Your task to perform on an android device: View the shopping cart on ebay.com. Add "razer blackwidow" to the cart on ebay.com Image 0: 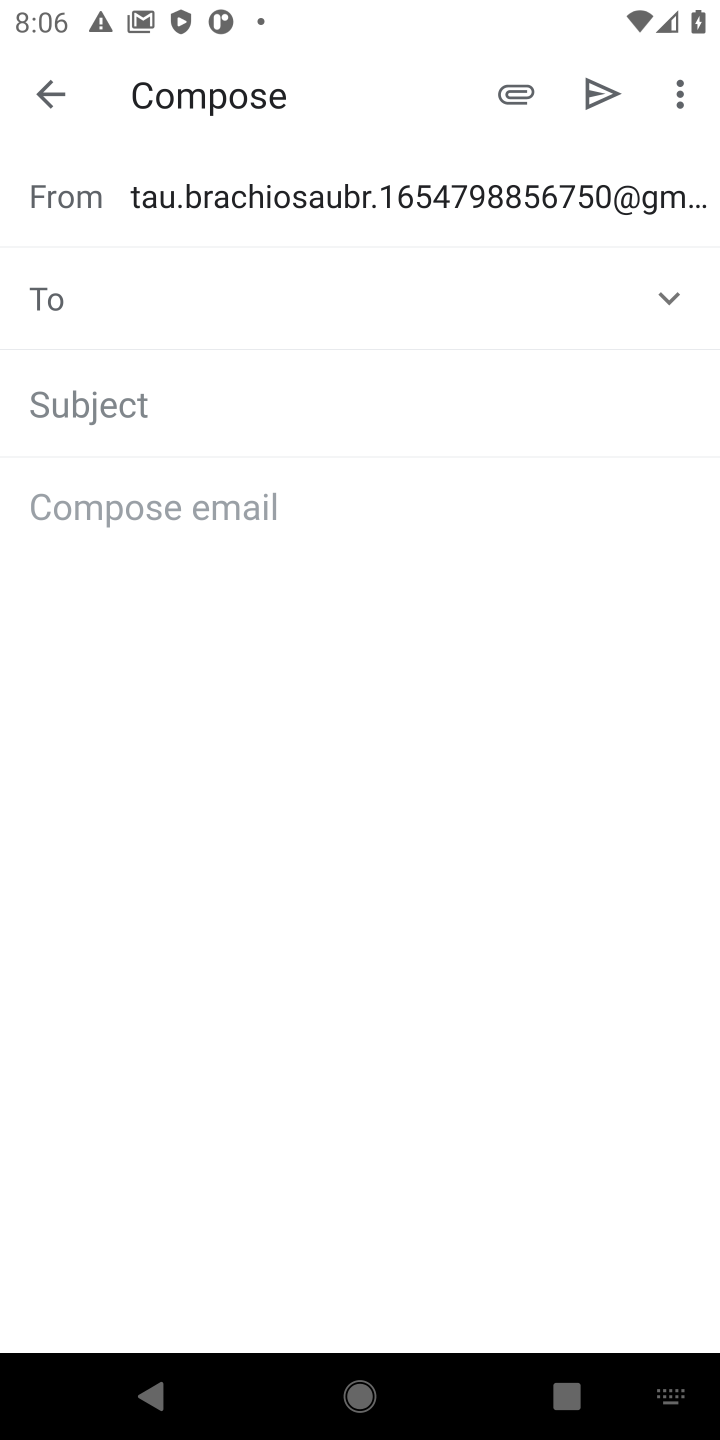
Step 0: press home button
Your task to perform on an android device: View the shopping cart on ebay.com. Add "razer blackwidow" to the cart on ebay.com Image 1: 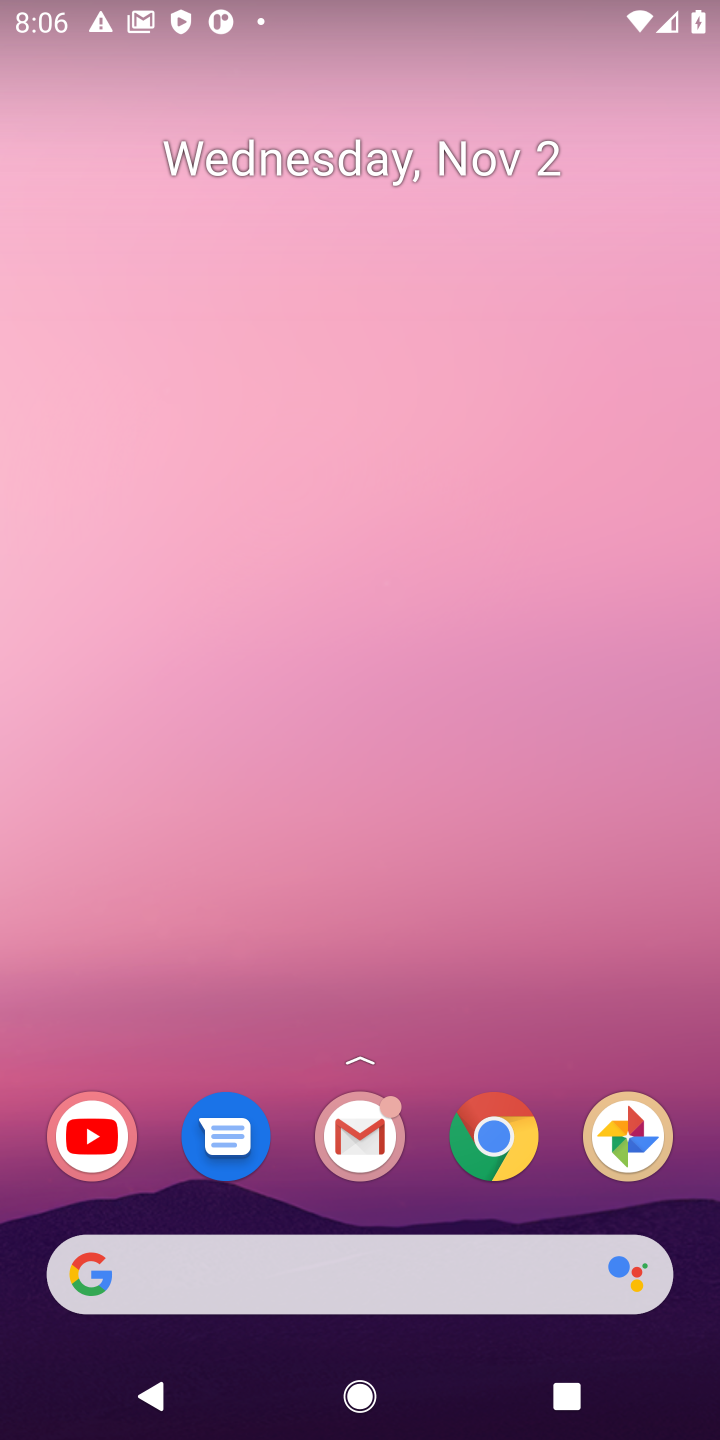
Step 1: drag from (401, 1016) to (469, 205)
Your task to perform on an android device: View the shopping cart on ebay.com. Add "razer blackwidow" to the cart on ebay.com Image 2: 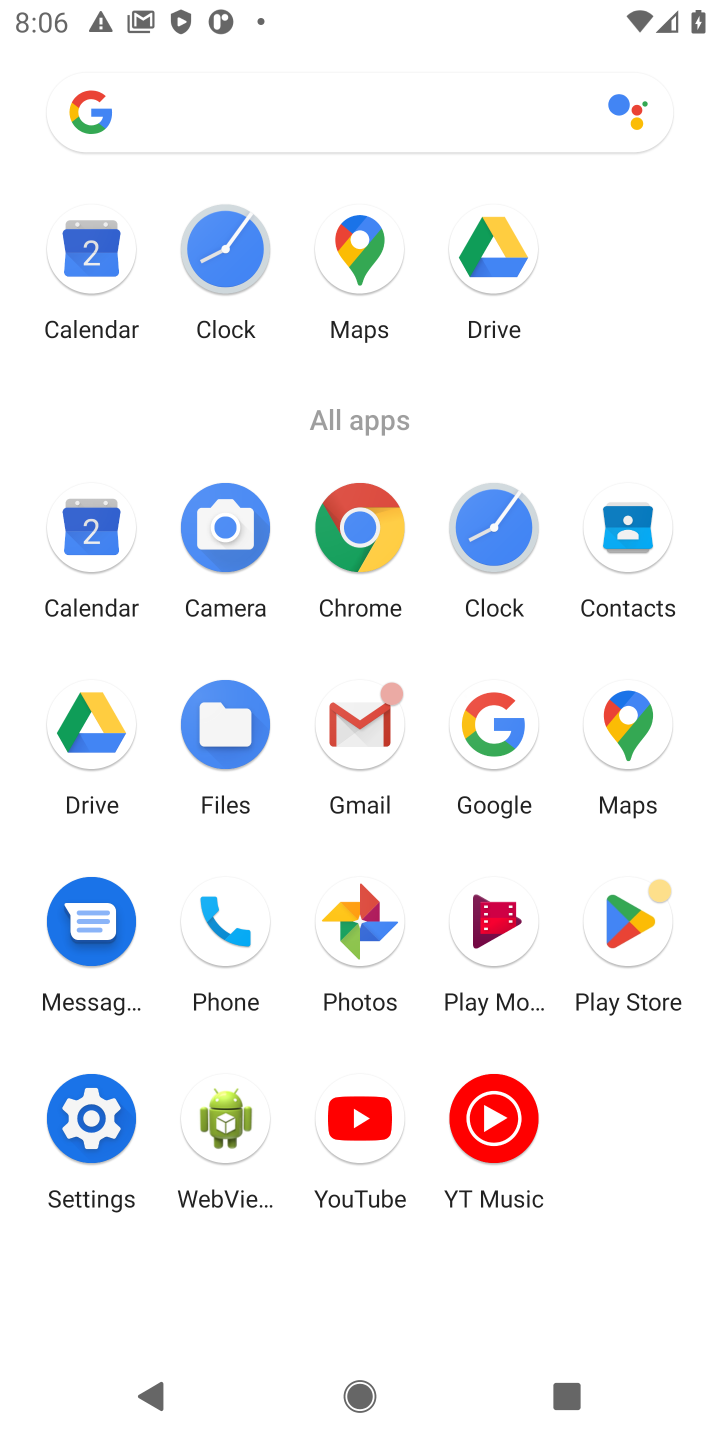
Step 2: click (491, 728)
Your task to perform on an android device: View the shopping cart on ebay.com. Add "razer blackwidow" to the cart on ebay.com Image 3: 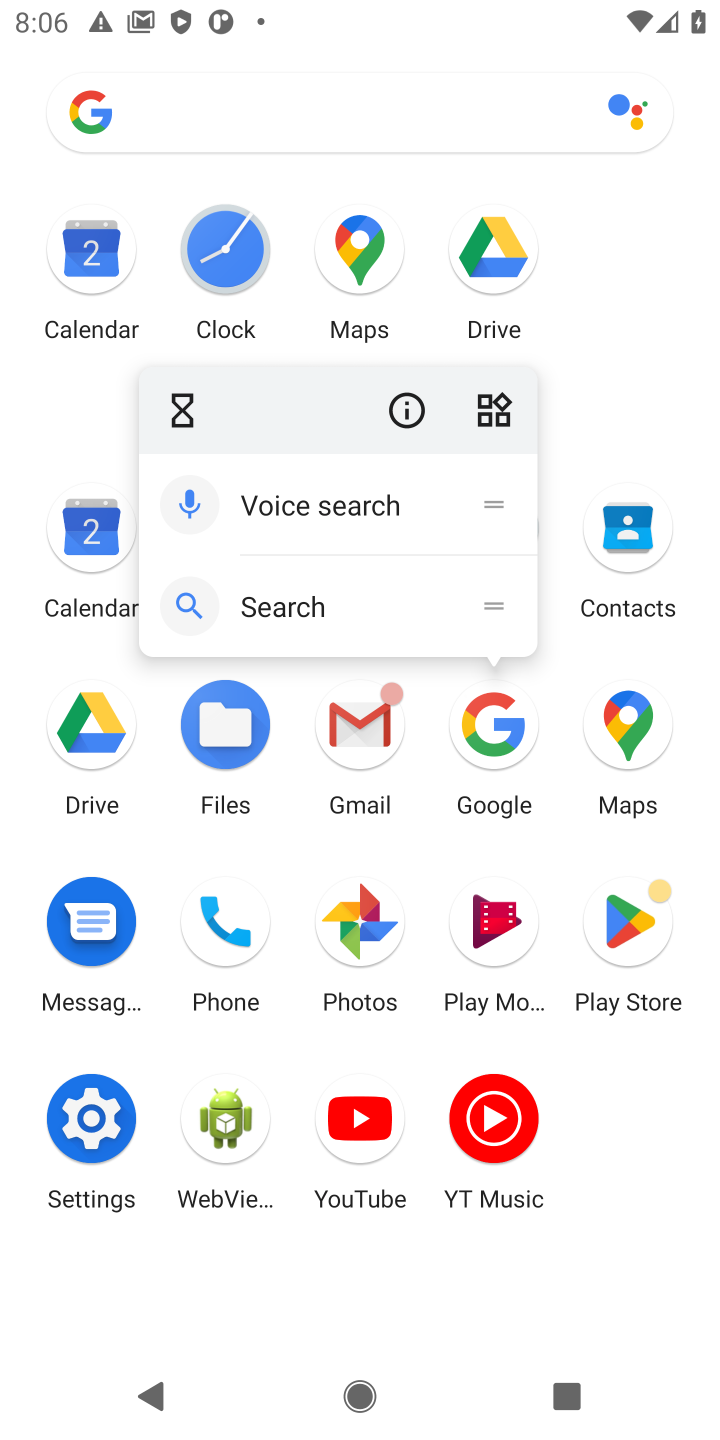
Step 3: click (491, 728)
Your task to perform on an android device: View the shopping cart on ebay.com. Add "razer blackwidow" to the cart on ebay.com Image 4: 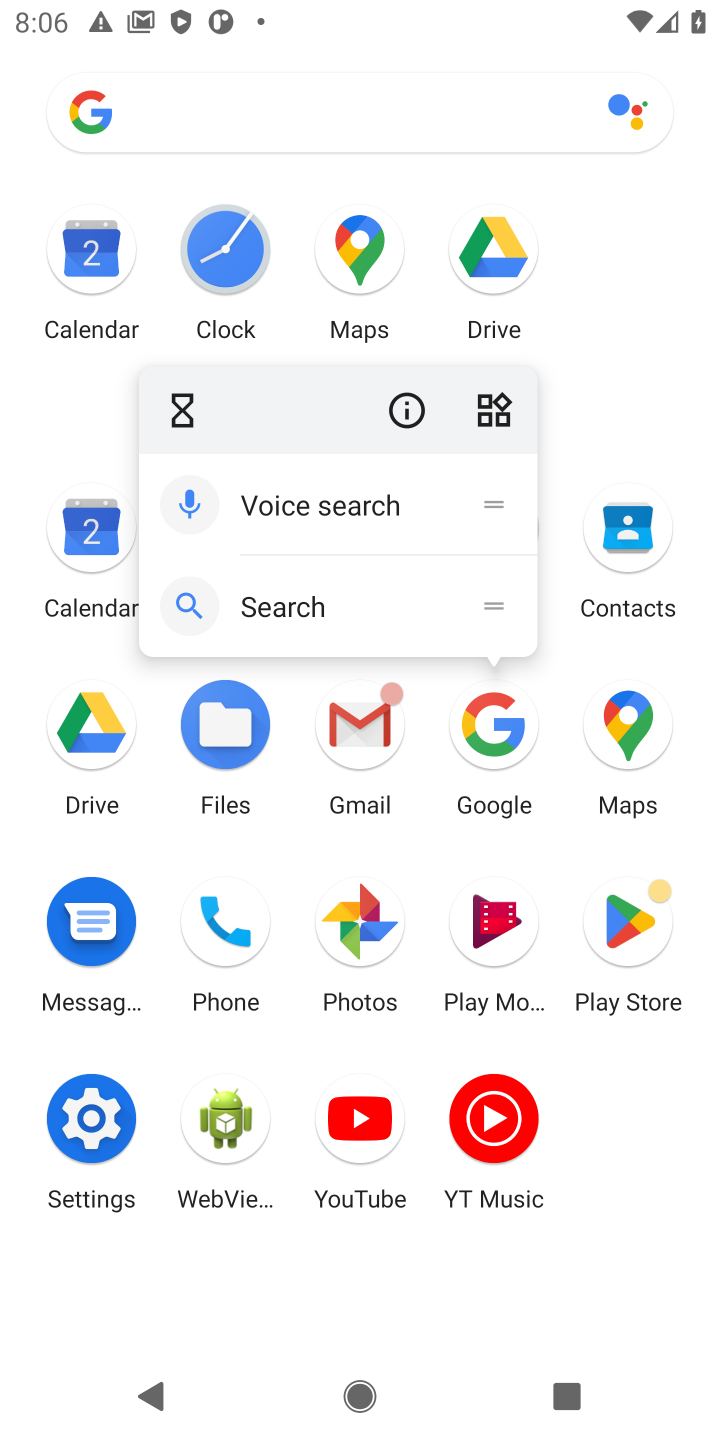
Step 4: click (491, 728)
Your task to perform on an android device: View the shopping cart on ebay.com. Add "razer blackwidow" to the cart on ebay.com Image 5: 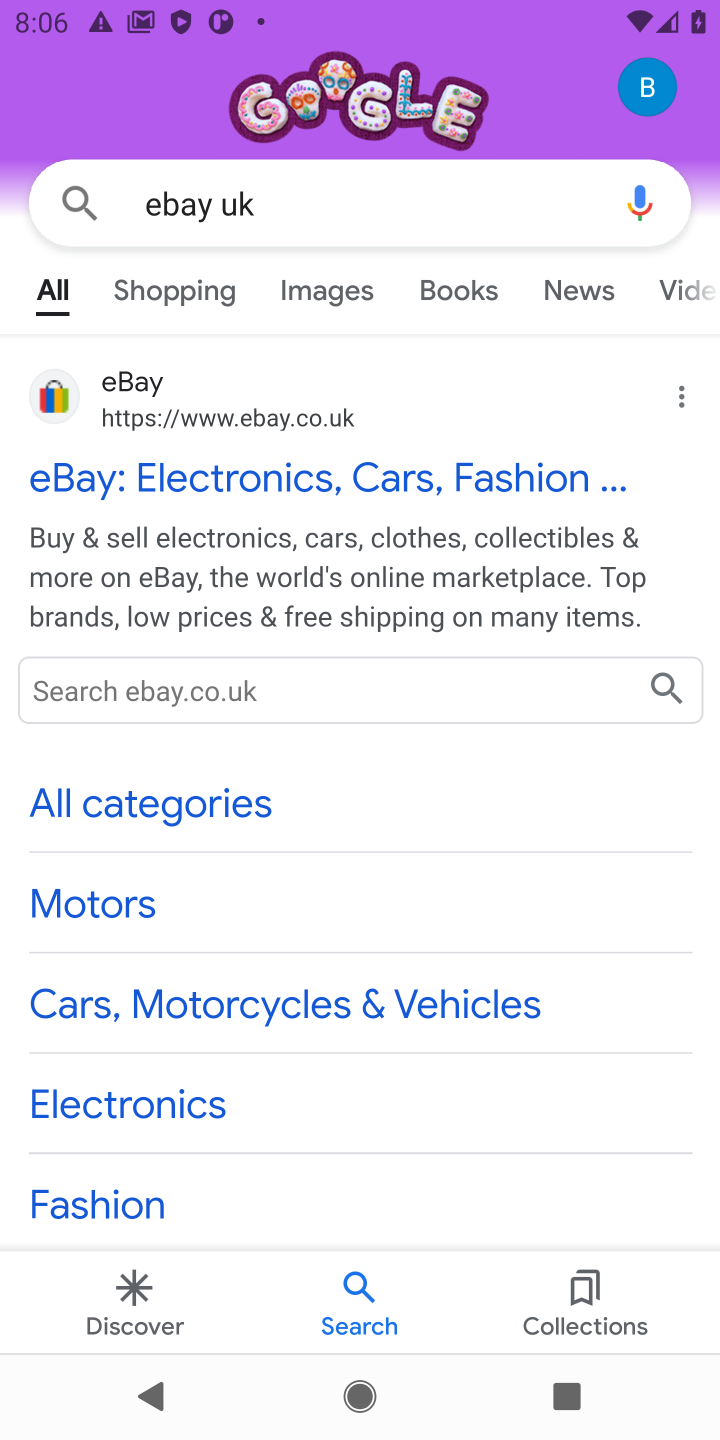
Step 5: click (40, 383)
Your task to perform on an android device: View the shopping cart on ebay.com. Add "razer blackwidow" to the cart on ebay.com Image 6: 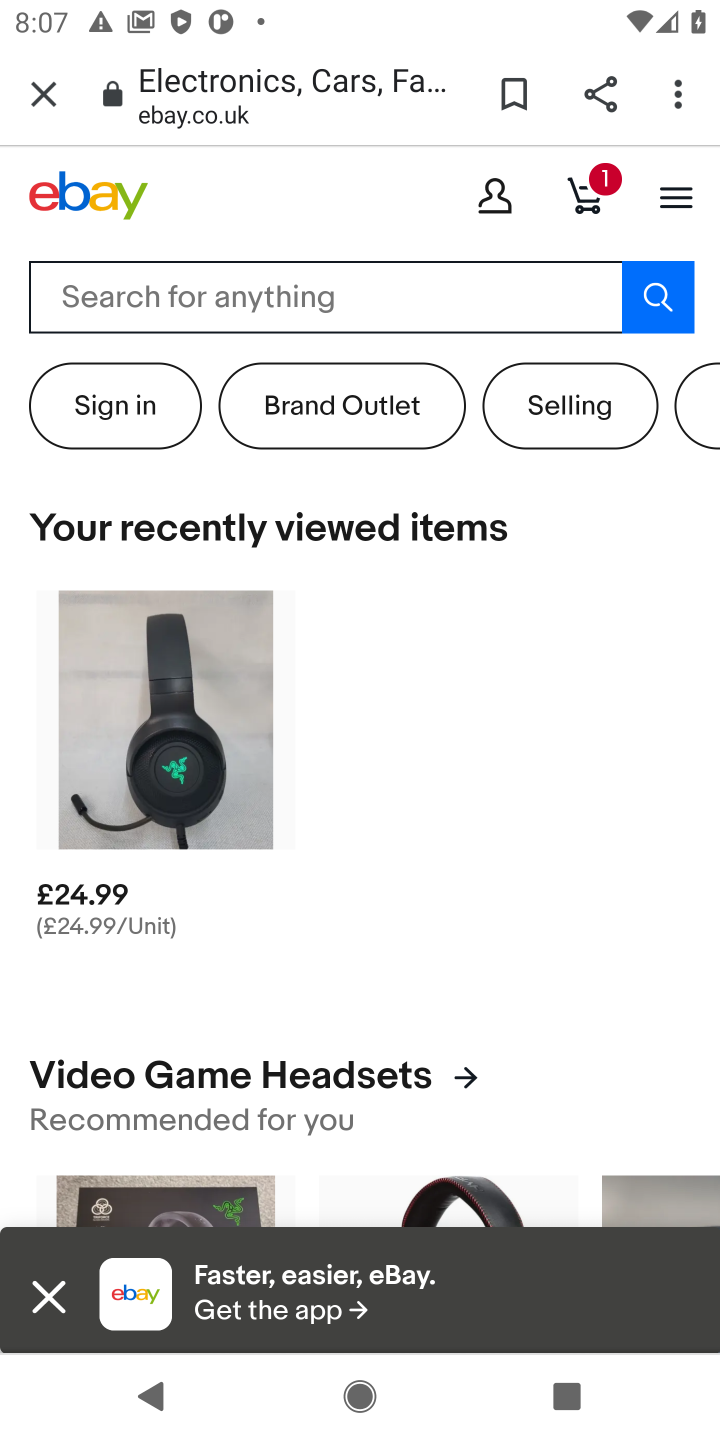
Step 6: click (330, 288)
Your task to perform on an android device: View the shopping cart on ebay.com. Add "razer blackwidow" to the cart on ebay.com Image 7: 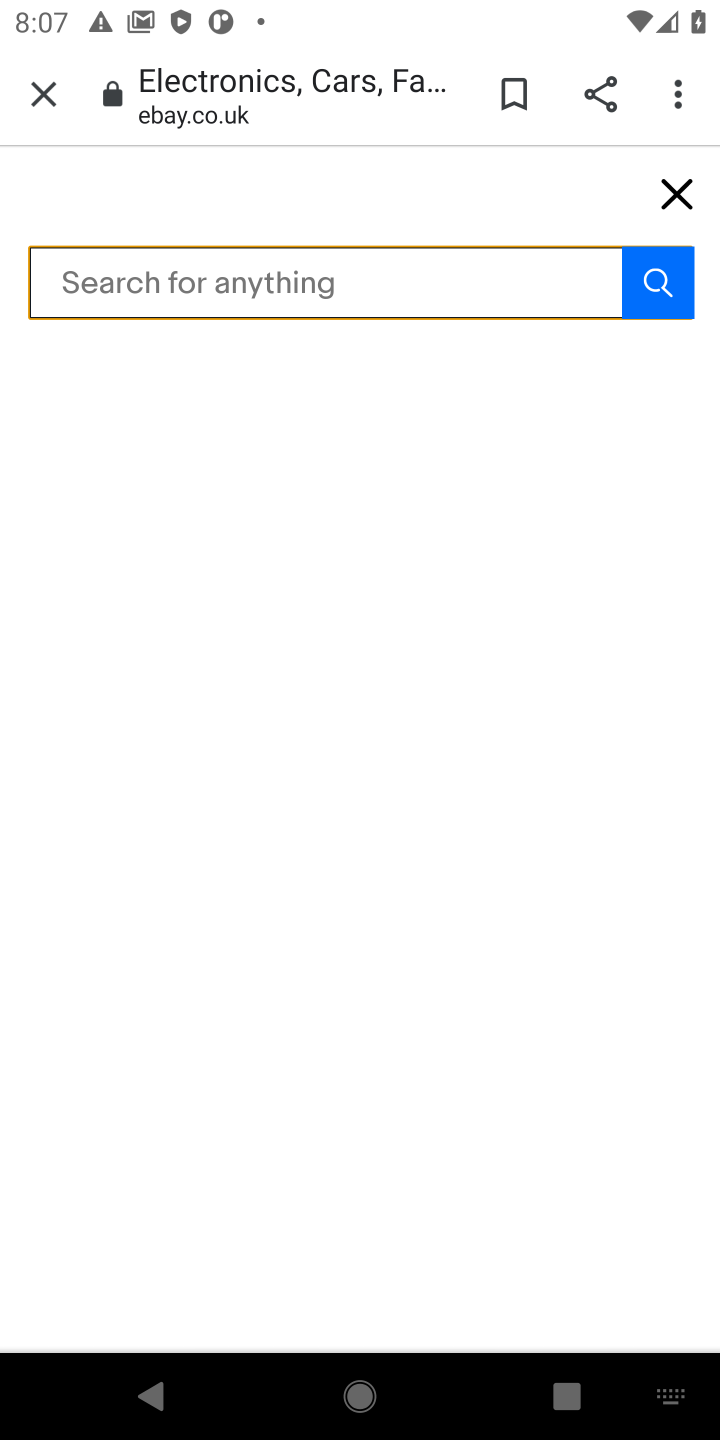
Step 7: type "razer blackwidow "
Your task to perform on an android device: View the shopping cart on ebay.com. Add "razer blackwidow" to the cart on ebay.com Image 8: 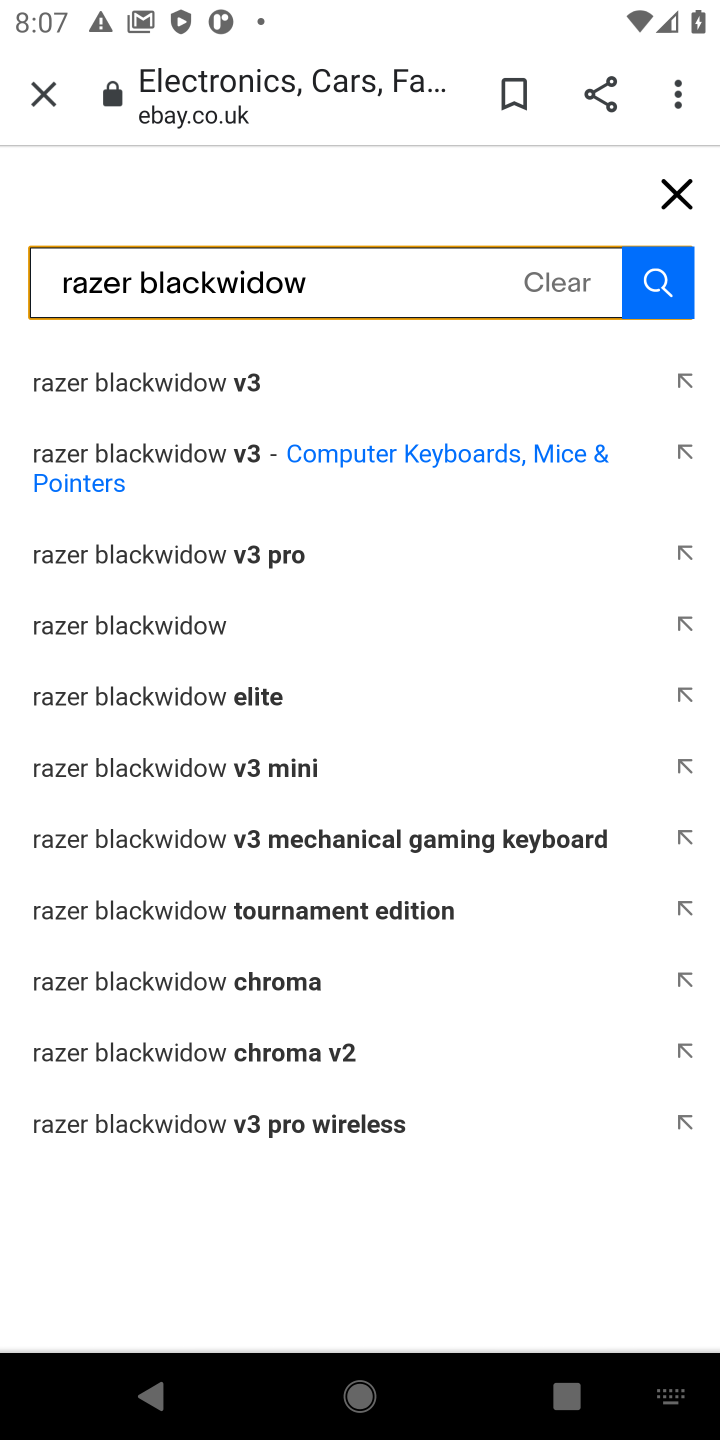
Step 8: click (158, 361)
Your task to perform on an android device: View the shopping cart on ebay.com. Add "razer blackwidow" to the cart on ebay.com Image 9: 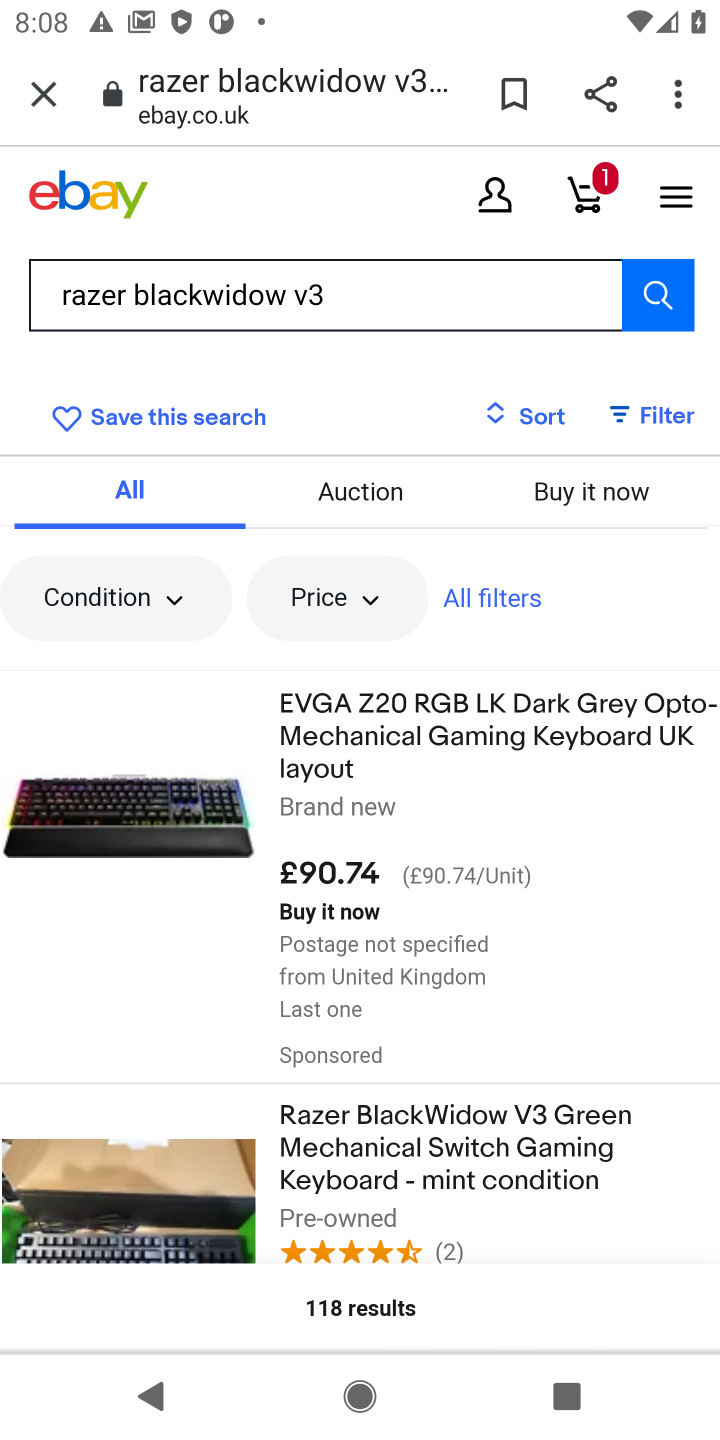
Step 9: click (404, 980)
Your task to perform on an android device: View the shopping cart on ebay.com. Add "razer blackwidow" to the cart on ebay.com Image 10: 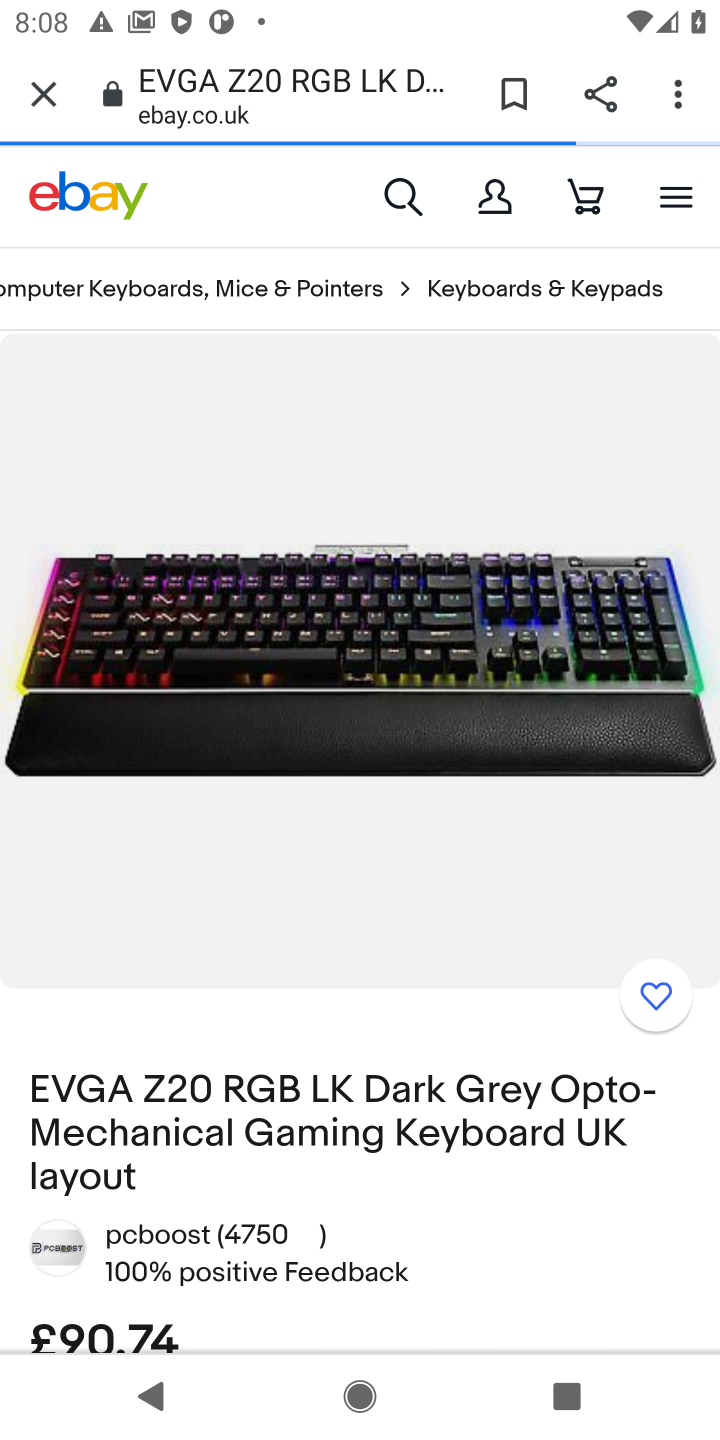
Step 10: drag from (469, 1127) to (469, 259)
Your task to perform on an android device: View the shopping cart on ebay.com. Add "razer blackwidow" to the cart on ebay.com Image 11: 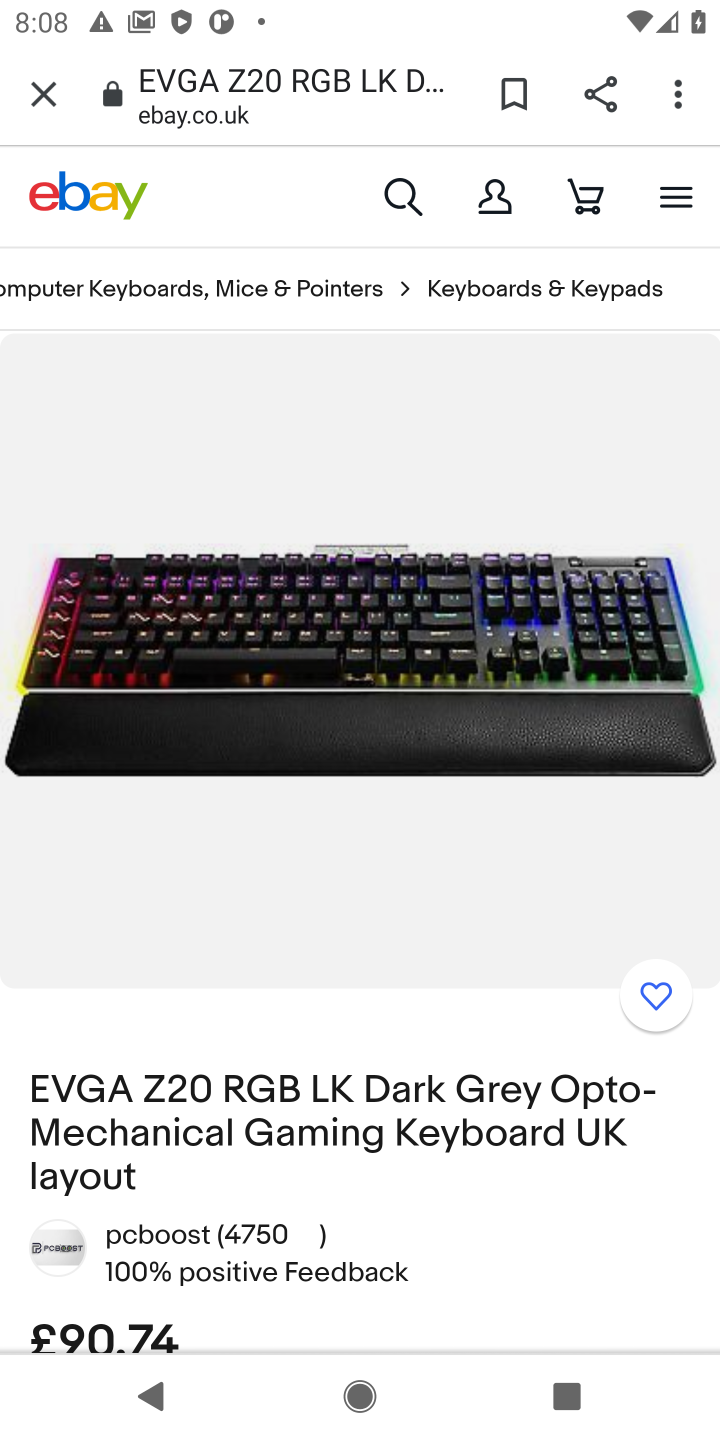
Step 11: drag from (374, 1222) to (467, 353)
Your task to perform on an android device: View the shopping cart on ebay.com. Add "razer blackwidow" to the cart on ebay.com Image 12: 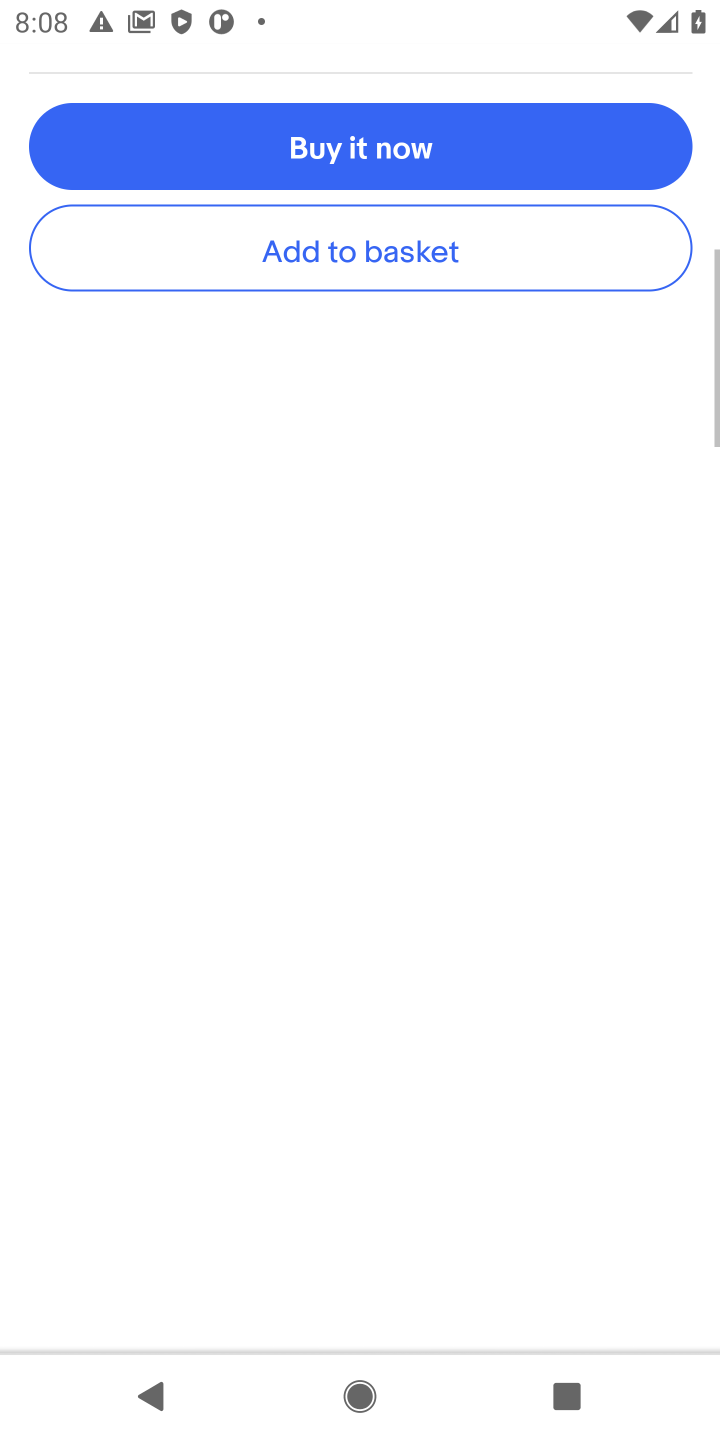
Step 12: drag from (462, 1253) to (475, 726)
Your task to perform on an android device: View the shopping cart on ebay.com. Add "razer blackwidow" to the cart on ebay.com Image 13: 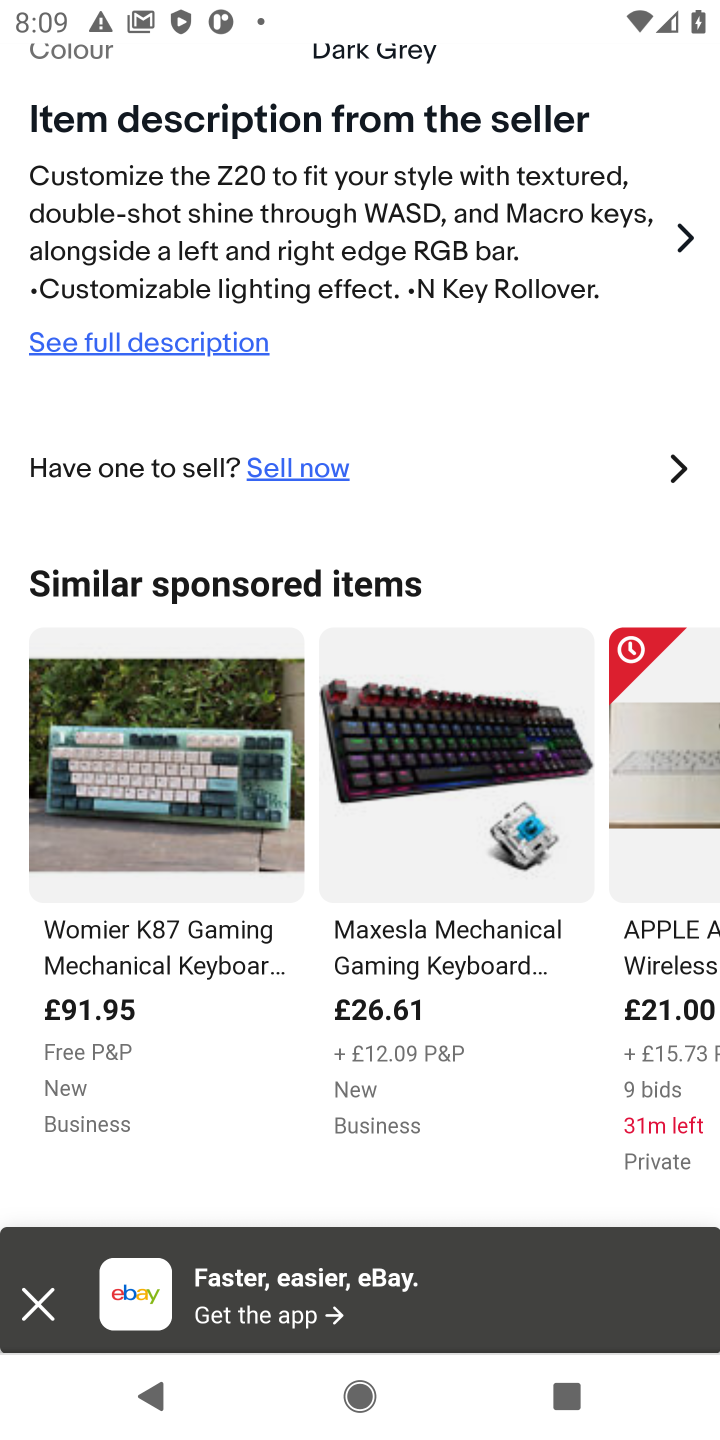
Step 13: click (45, 1324)
Your task to perform on an android device: View the shopping cart on ebay.com. Add "razer blackwidow" to the cart on ebay.com Image 14: 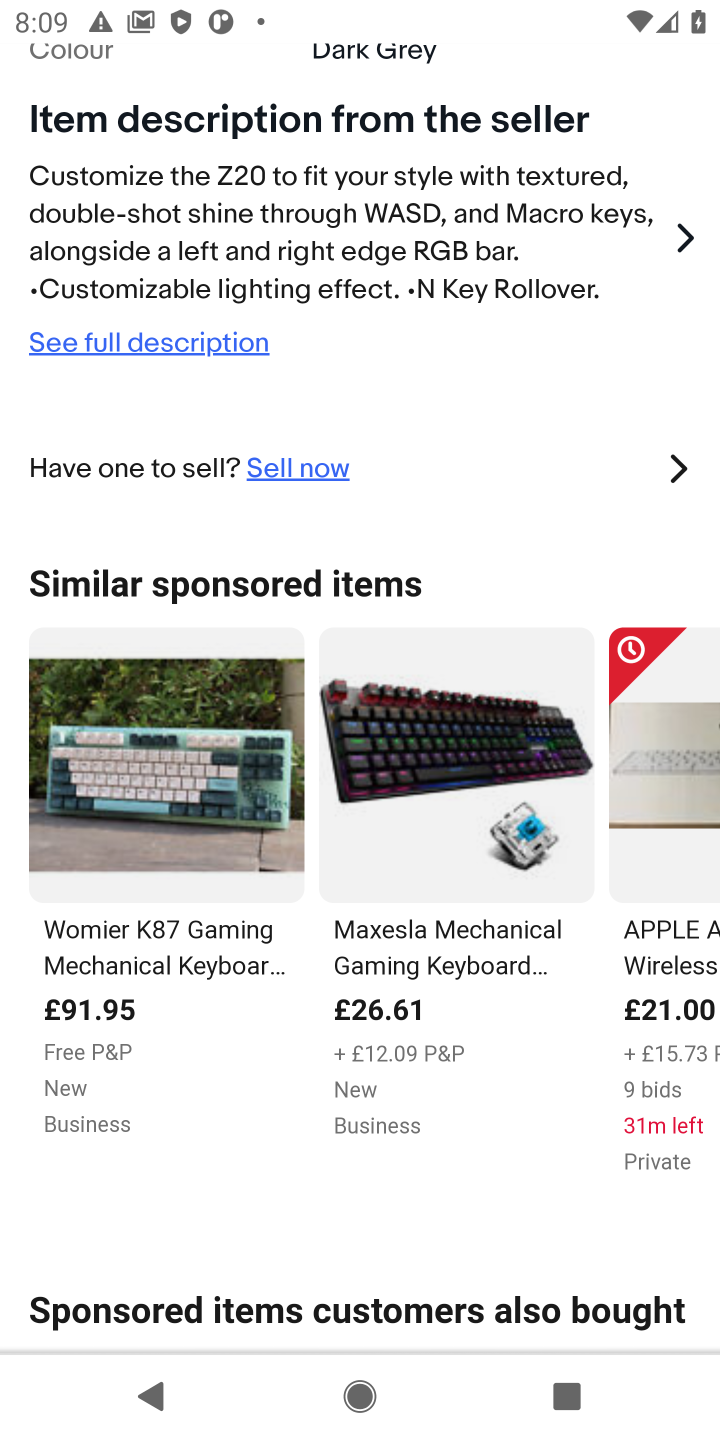
Step 14: drag from (340, 340) to (279, 1175)
Your task to perform on an android device: View the shopping cart on ebay.com. Add "razer blackwidow" to the cart on ebay.com Image 15: 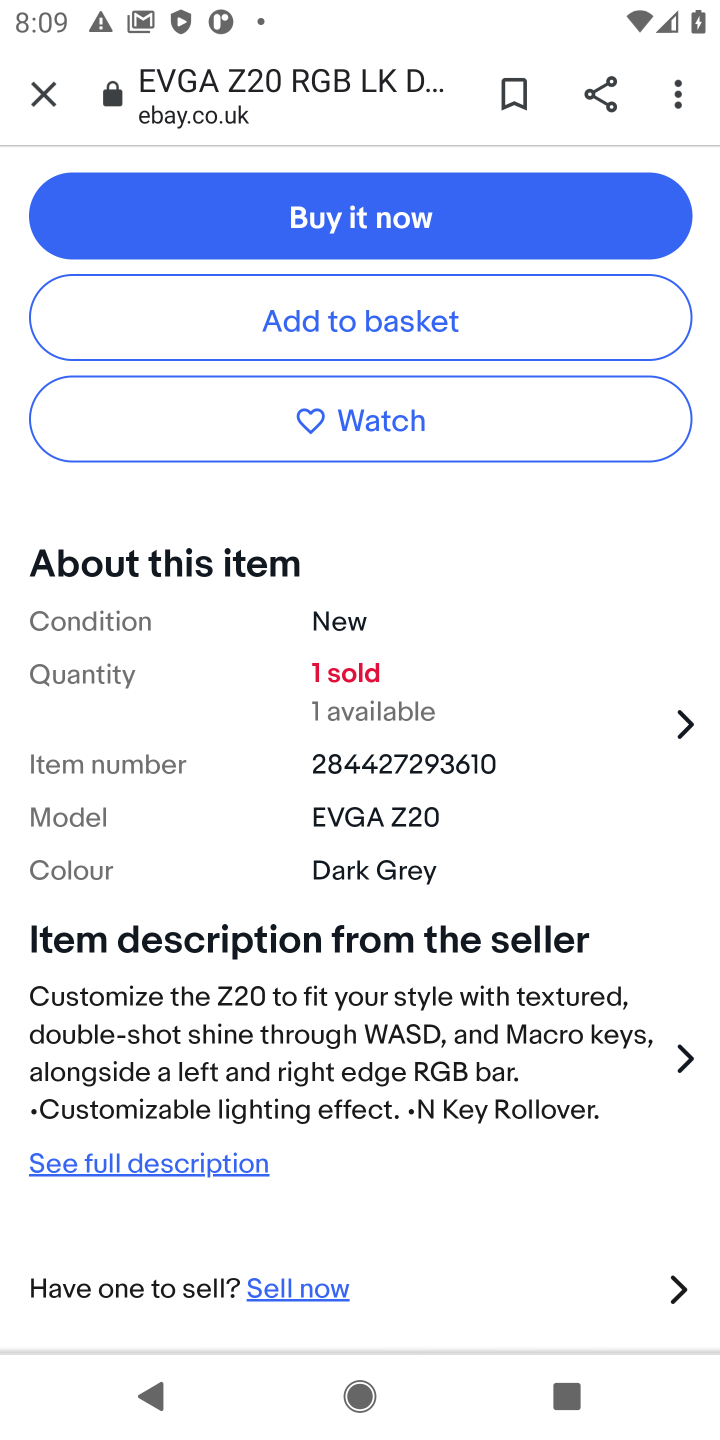
Step 15: click (368, 331)
Your task to perform on an android device: View the shopping cart on ebay.com. Add "razer blackwidow" to the cart on ebay.com Image 16: 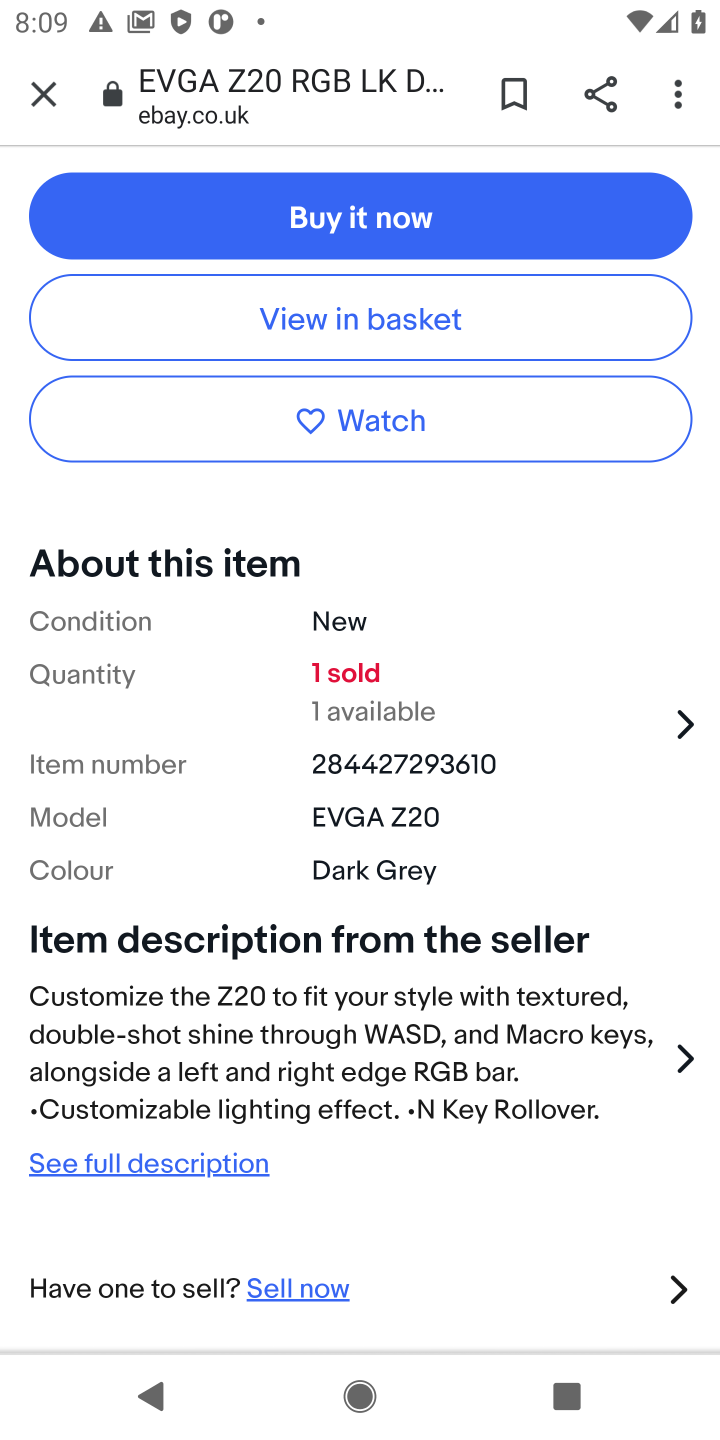
Step 16: task complete